Your task to perform on an android device: turn on the 12-hour format for clock Image 0: 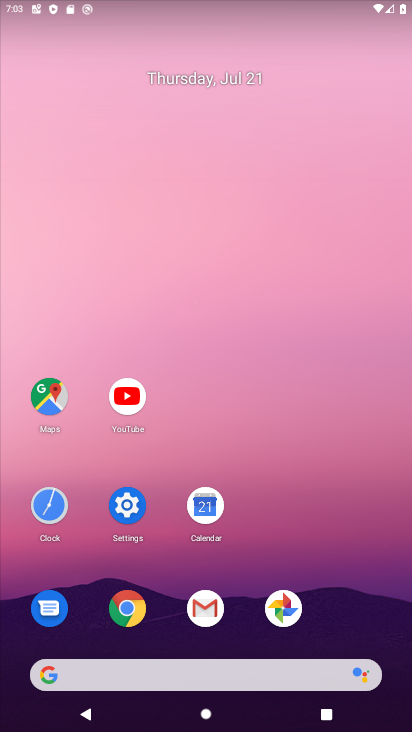
Step 0: click (47, 502)
Your task to perform on an android device: turn on the 12-hour format for clock Image 1: 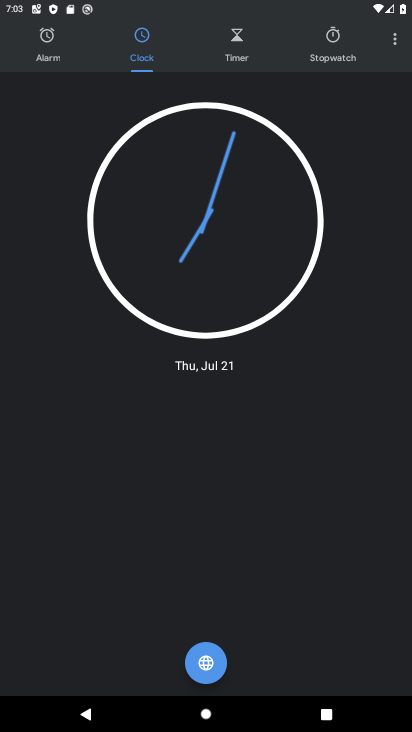
Step 1: click (400, 34)
Your task to perform on an android device: turn on the 12-hour format for clock Image 2: 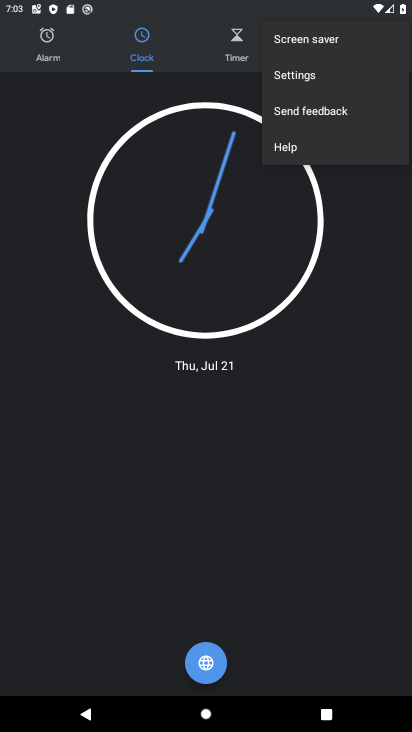
Step 2: click (275, 73)
Your task to perform on an android device: turn on the 12-hour format for clock Image 3: 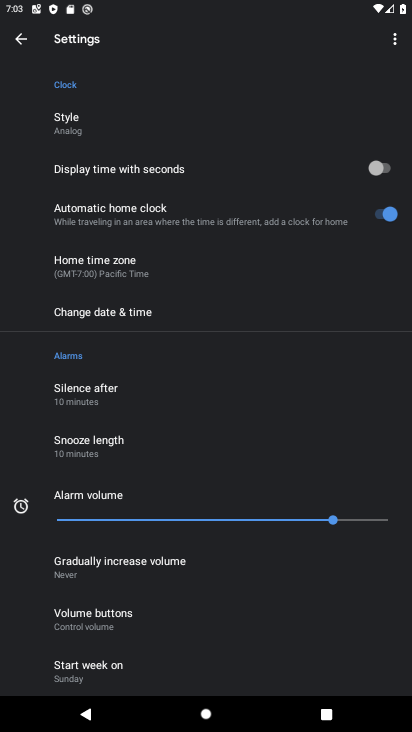
Step 3: click (120, 312)
Your task to perform on an android device: turn on the 12-hour format for clock Image 4: 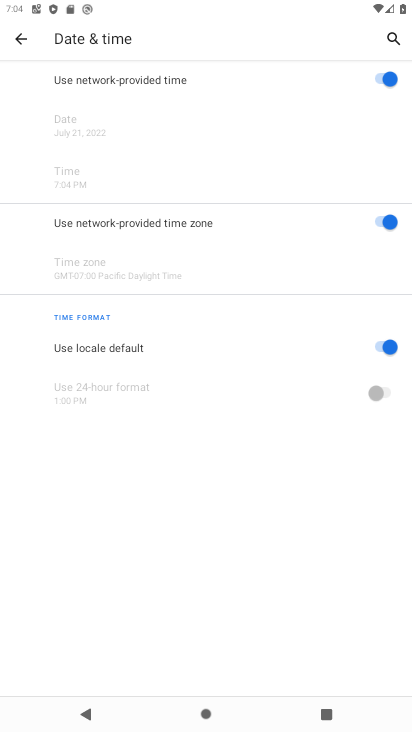
Step 4: task complete